Your task to perform on an android device: Open Amazon Image 0: 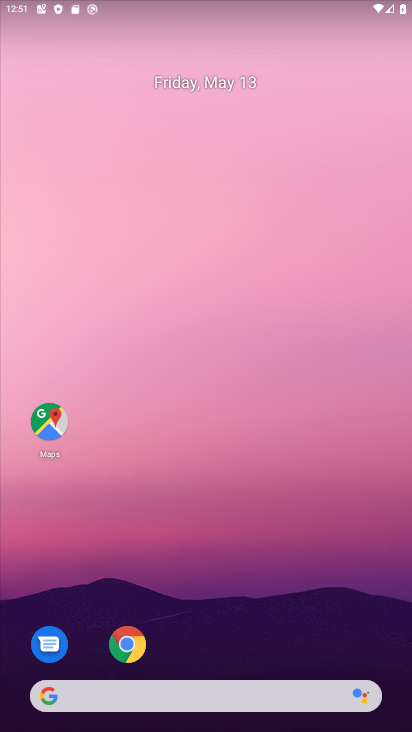
Step 0: click (146, 646)
Your task to perform on an android device: Open Amazon Image 1: 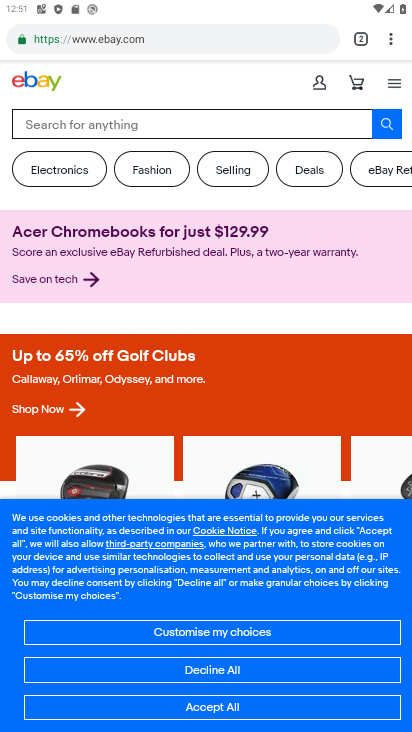
Step 1: click (362, 39)
Your task to perform on an android device: Open Amazon Image 2: 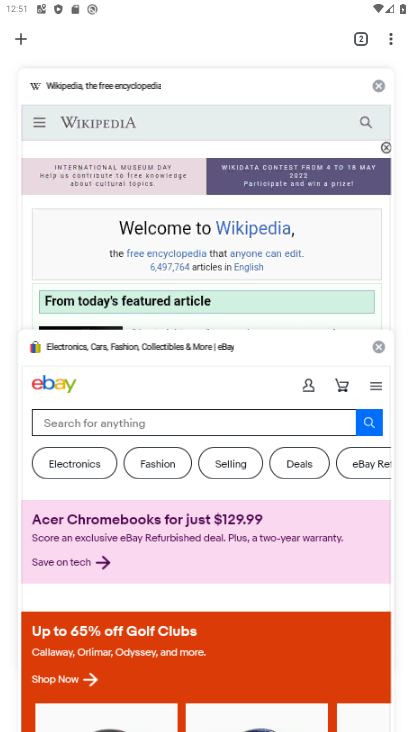
Step 2: click (15, 37)
Your task to perform on an android device: Open Amazon Image 3: 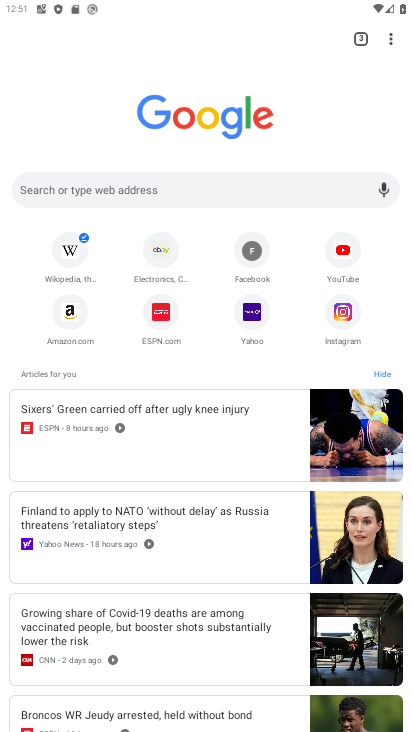
Step 3: click (82, 317)
Your task to perform on an android device: Open Amazon Image 4: 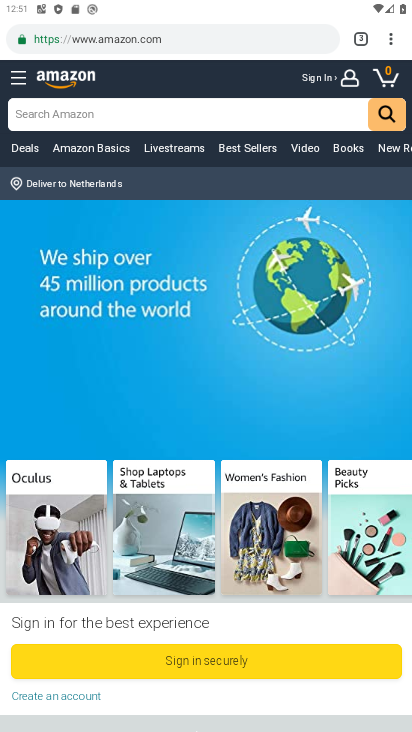
Step 4: task complete